Your task to perform on an android device: What is the recent news? Image 0: 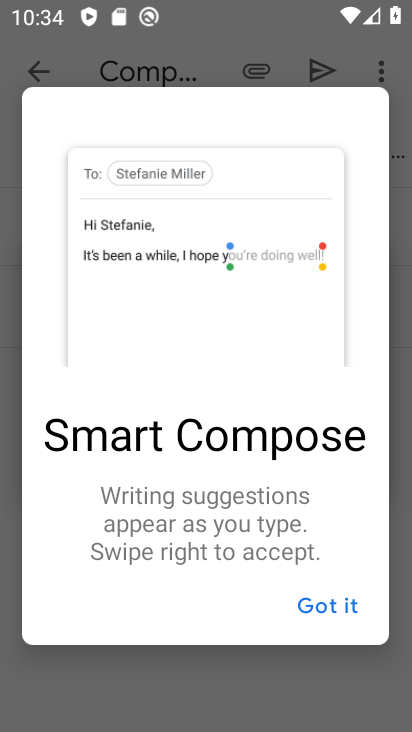
Step 0: press home button
Your task to perform on an android device: What is the recent news? Image 1: 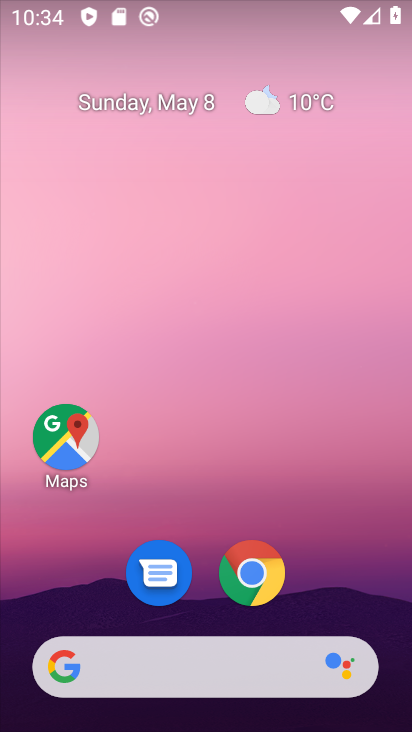
Step 1: click (166, 722)
Your task to perform on an android device: What is the recent news? Image 2: 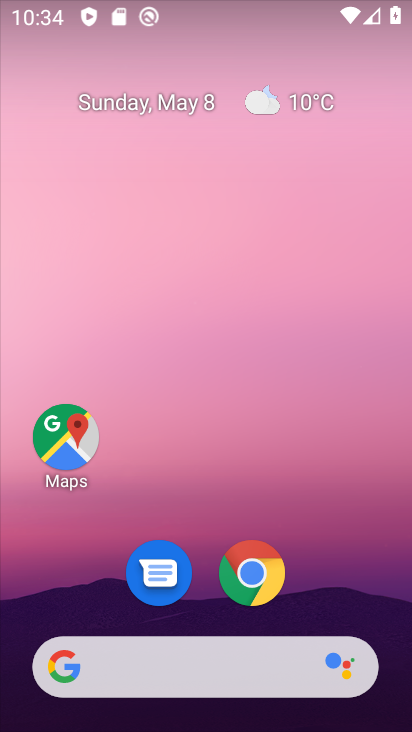
Step 2: click (242, 567)
Your task to perform on an android device: What is the recent news? Image 3: 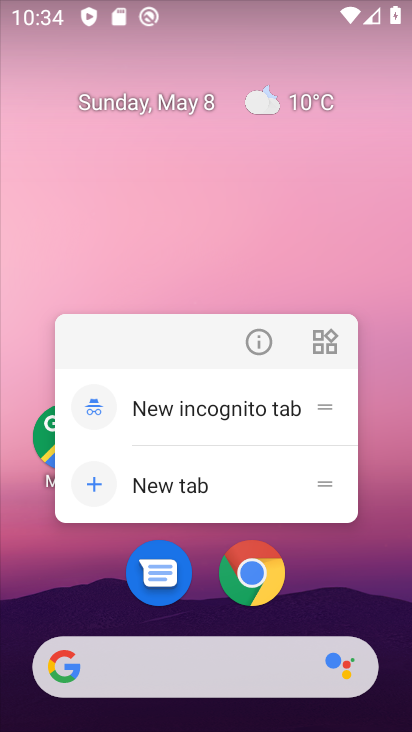
Step 3: click (241, 569)
Your task to perform on an android device: What is the recent news? Image 4: 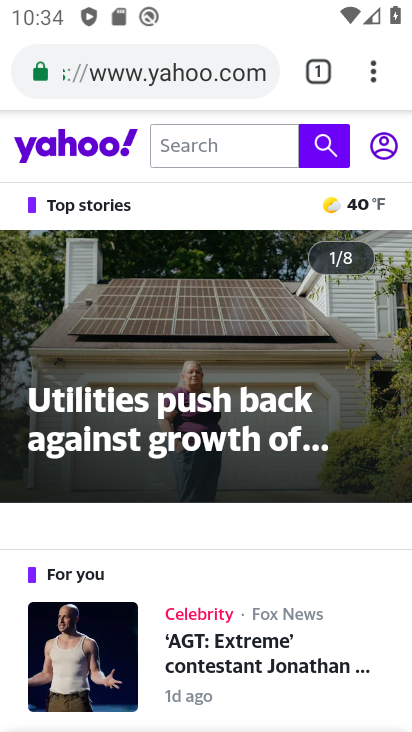
Step 4: click (194, 88)
Your task to perform on an android device: What is the recent news? Image 5: 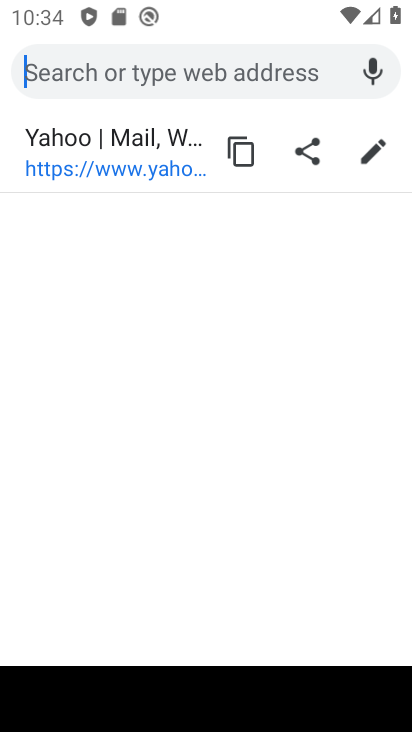
Step 5: click (181, 73)
Your task to perform on an android device: What is the recent news? Image 6: 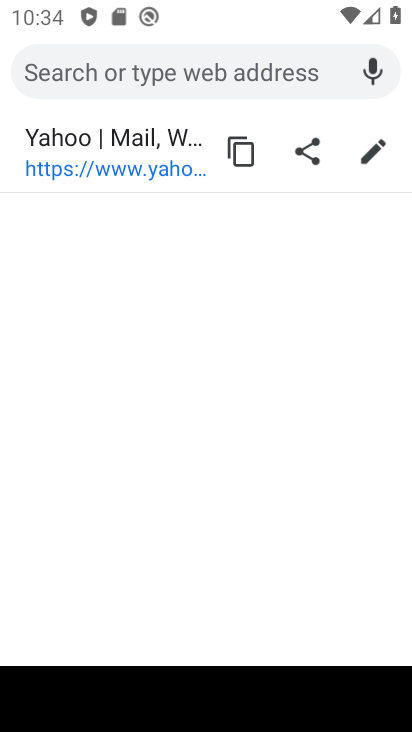
Step 6: type "What is the recent news?"
Your task to perform on an android device: What is the recent news? Image 7: 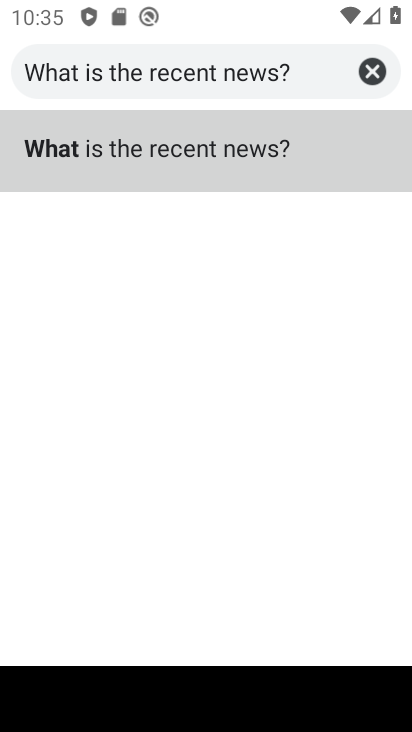
Step 7: click (296, 141)
Your task to perform on an android device: What is the recent news? Image 8: 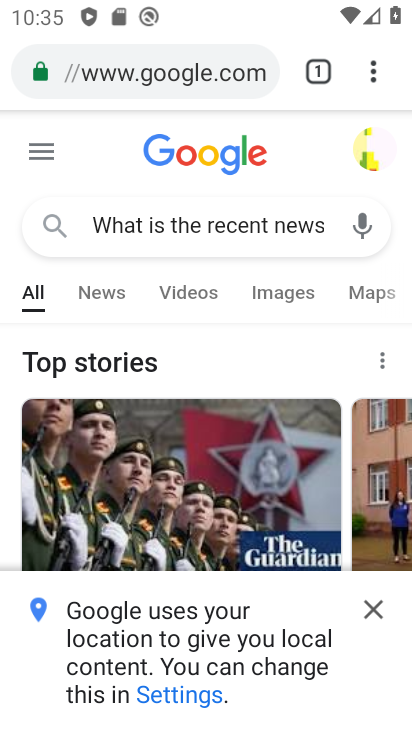
Step 8: task complete